Your task to perform on an android device: Open Google Maps and go to "Timeline" Image 0: 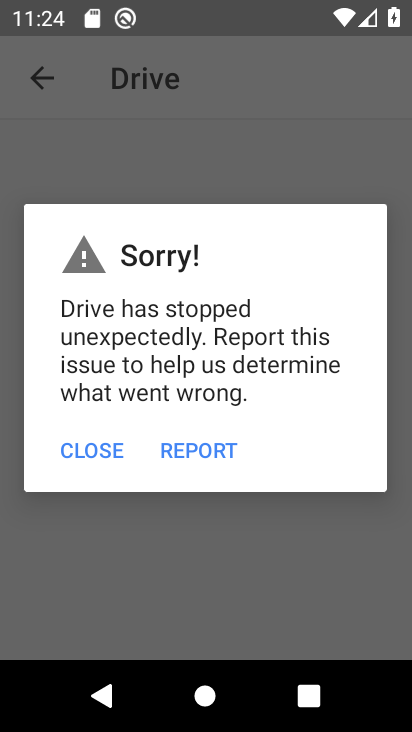
Step 0: press home button
Your task to perform on an android device: Open Google Maps and go to "Timeline" Image 1: 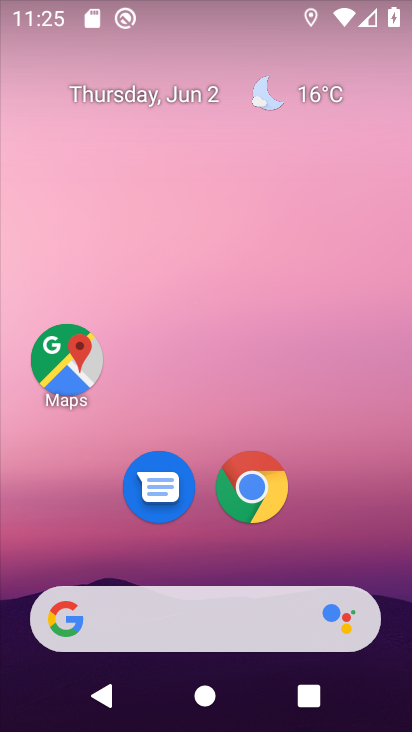
Step 1: click (67, 365)
Your task to perform on an android device: Open Google Maps and go to "Timeline" Image 2: 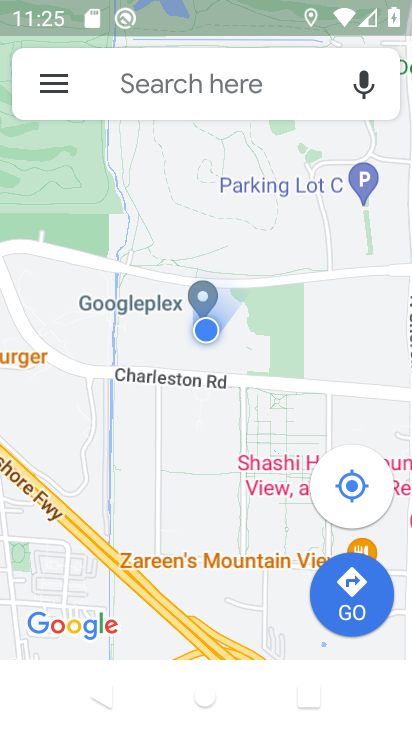
Step 2: click (53, 82)
Your task to perform on an android device: Open Google Maps and go to "Timeline" Image 3: 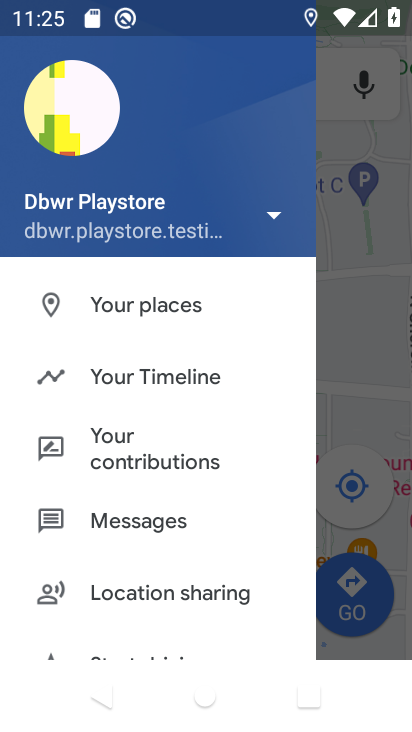
Step 3: click (164, 371)
Your task to perform on an android device: Open Google Maps and go to "Timeline" Image 4: 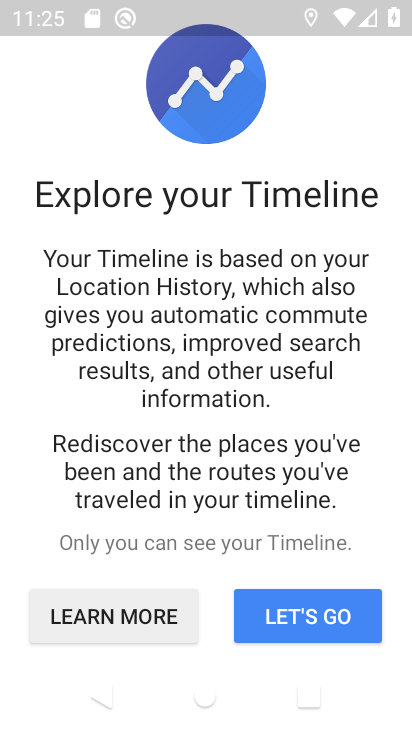
Step 4: click (323, 609)
Your task to perform on an android device: Open Google Maps and go to "Timeline" Image 5: 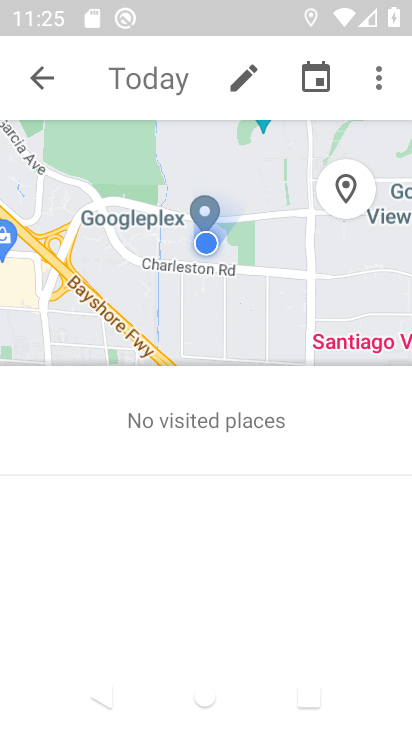
Step 5: task complete